Your task to perform on an android device: turn off wifi Image 0: 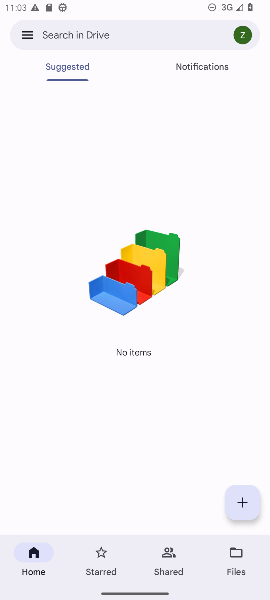
Step 0: press home button
Your task to perform on an android device: turn off wifi Image 1: 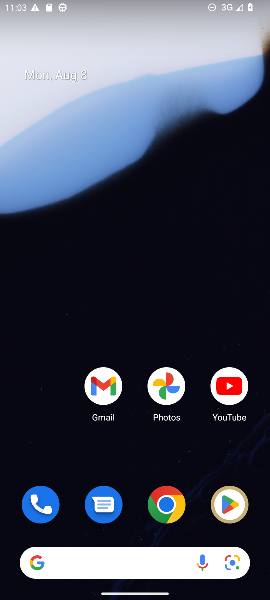
Step 1: drag from (127, 529) to (101, 41)
Your task to perform on an android device: turn off wifi Image 2: 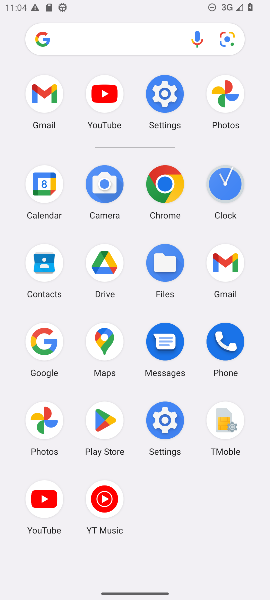
Step 2: click (160, 426)
Your task to perform on an android device: turn off wifi Image 3: 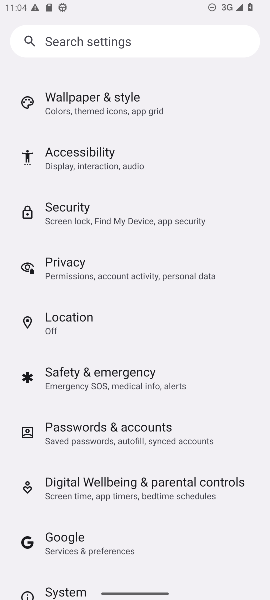
Step 3: drag from (94, 118) to (145, 412)
Your task to perform on an android device: turn off wifi Image 4: 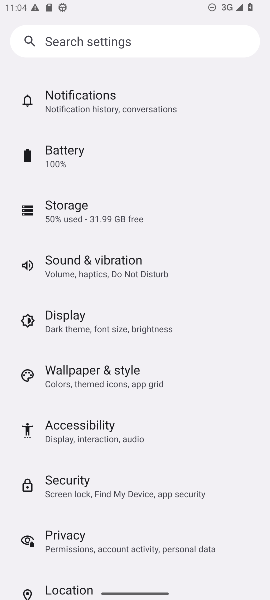
Step 4: drag from (114, 148) to (128, 488)
Your task to perform on an android device: turn off wifi Image 5: 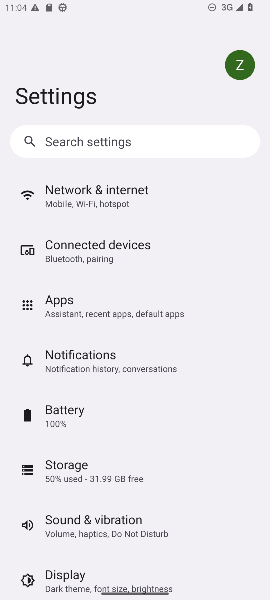
Step 5: click (113, 200)
Your task to perform on an android device: turn off wifi Image 6: 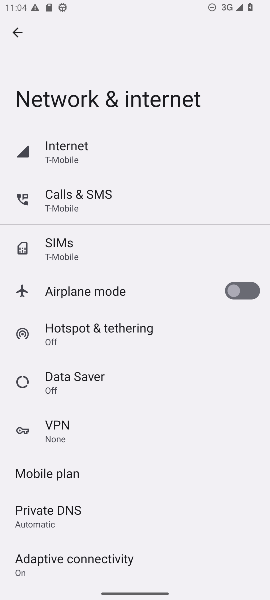
Step 6: click (90, 154)
Your task to perform on an android device: turn off wifi Image 7: 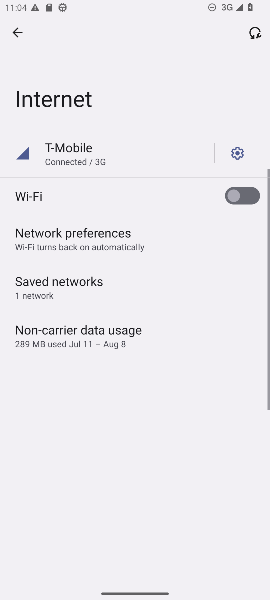
Step 7: task complete